Your task to perform on an android device: open app "Life360: Find Family & Friends" (install if not already installed) and go to login screen Image 0: 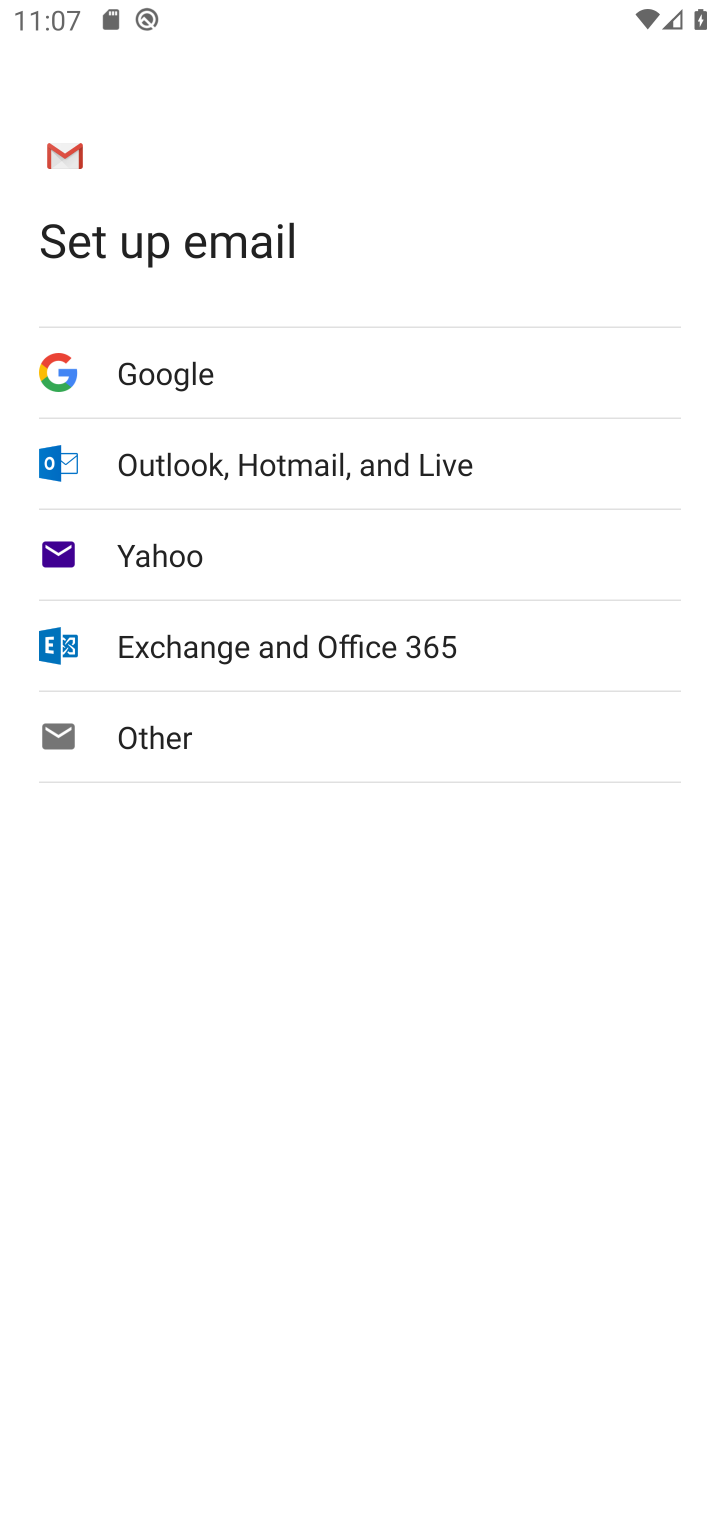
Step 0: press home button
Your task to perform on an android device: open app "Life360: Find Family & Friends" (install if not already installed) and go to login screen Image 1: 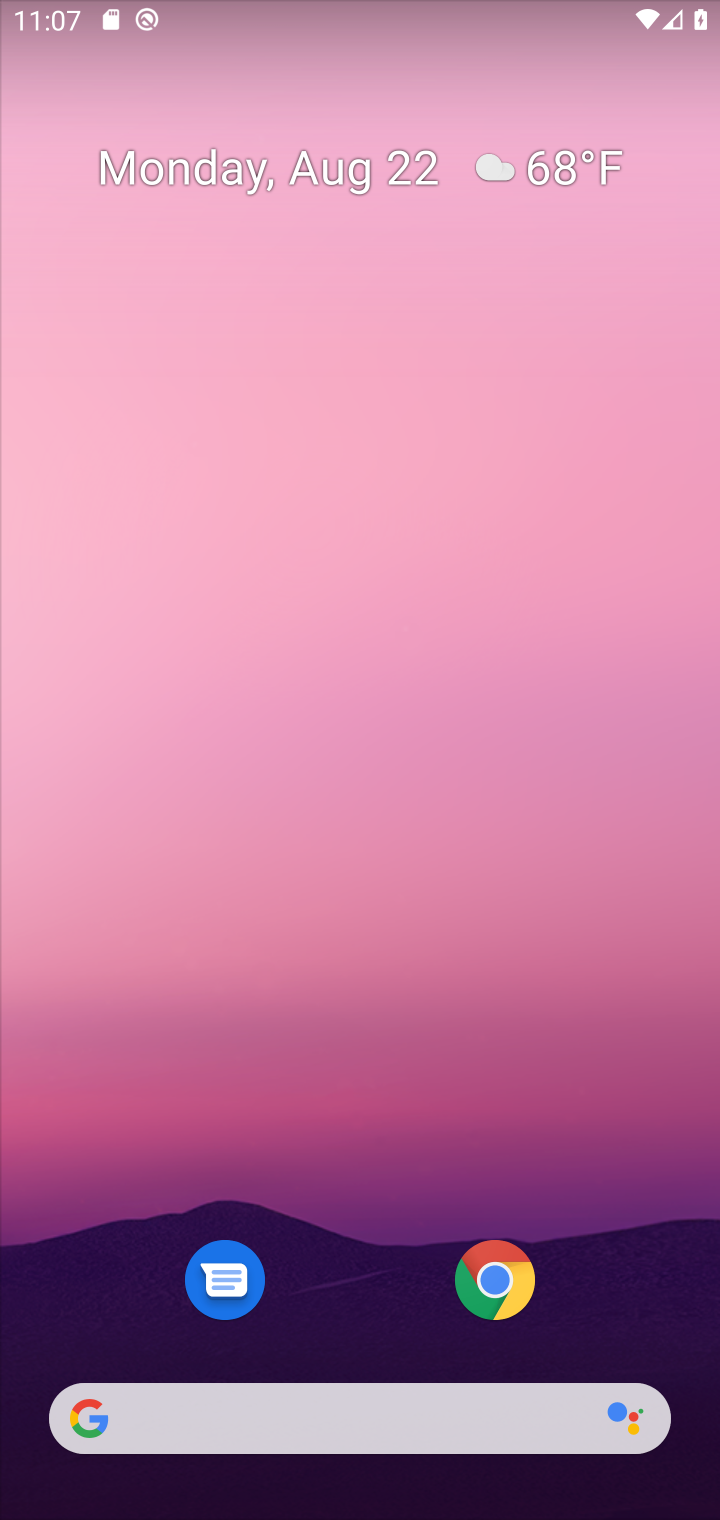
Step 1: drag from (355, 1343) to (443, 273)
Your task to perform on an android device: open app "Life360: Find Family & Friends" (install if not already installed) and go to login screen Image 2: 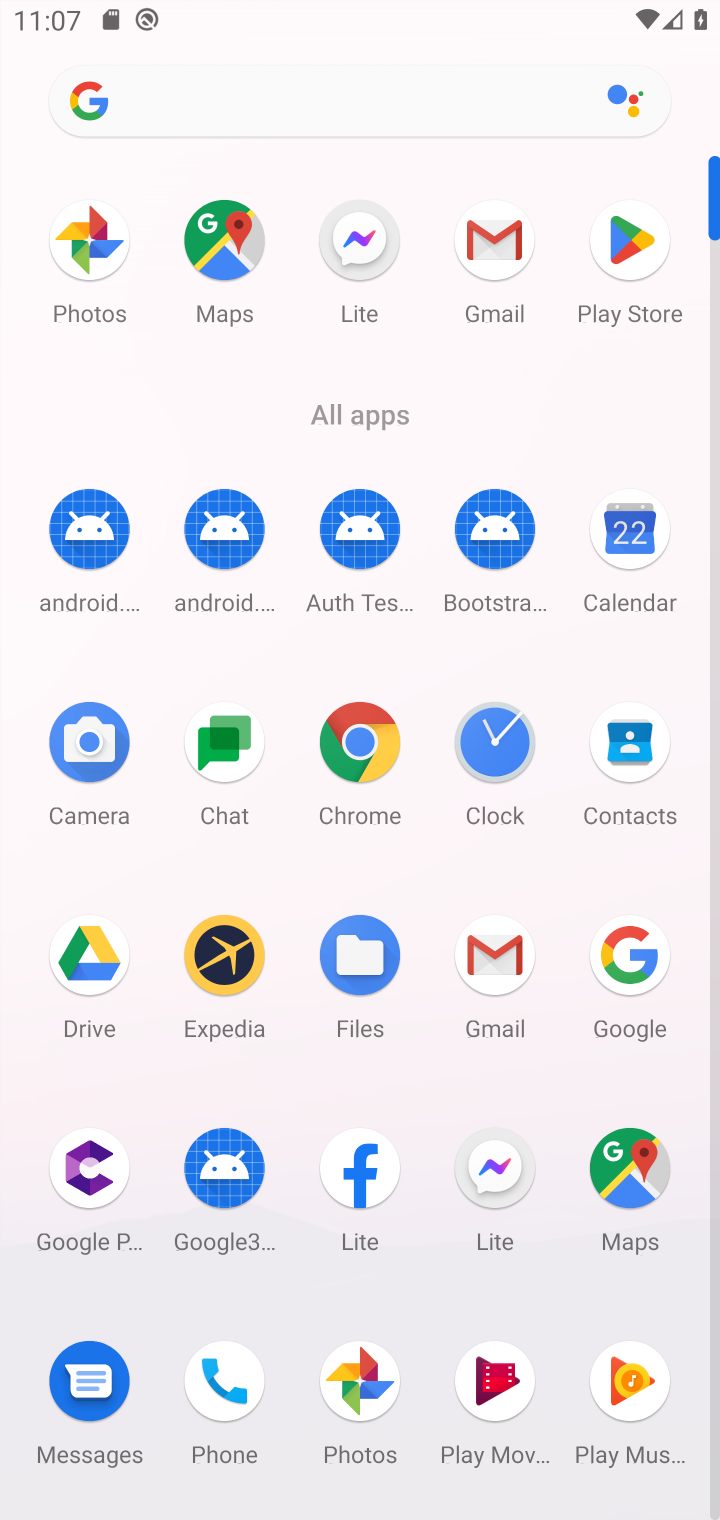
Step 2: click (618, 236)
Your task to perform on an android device: open app "Life360: Find Family & Friends" (install if not already installed) and go to login screen Image 3: 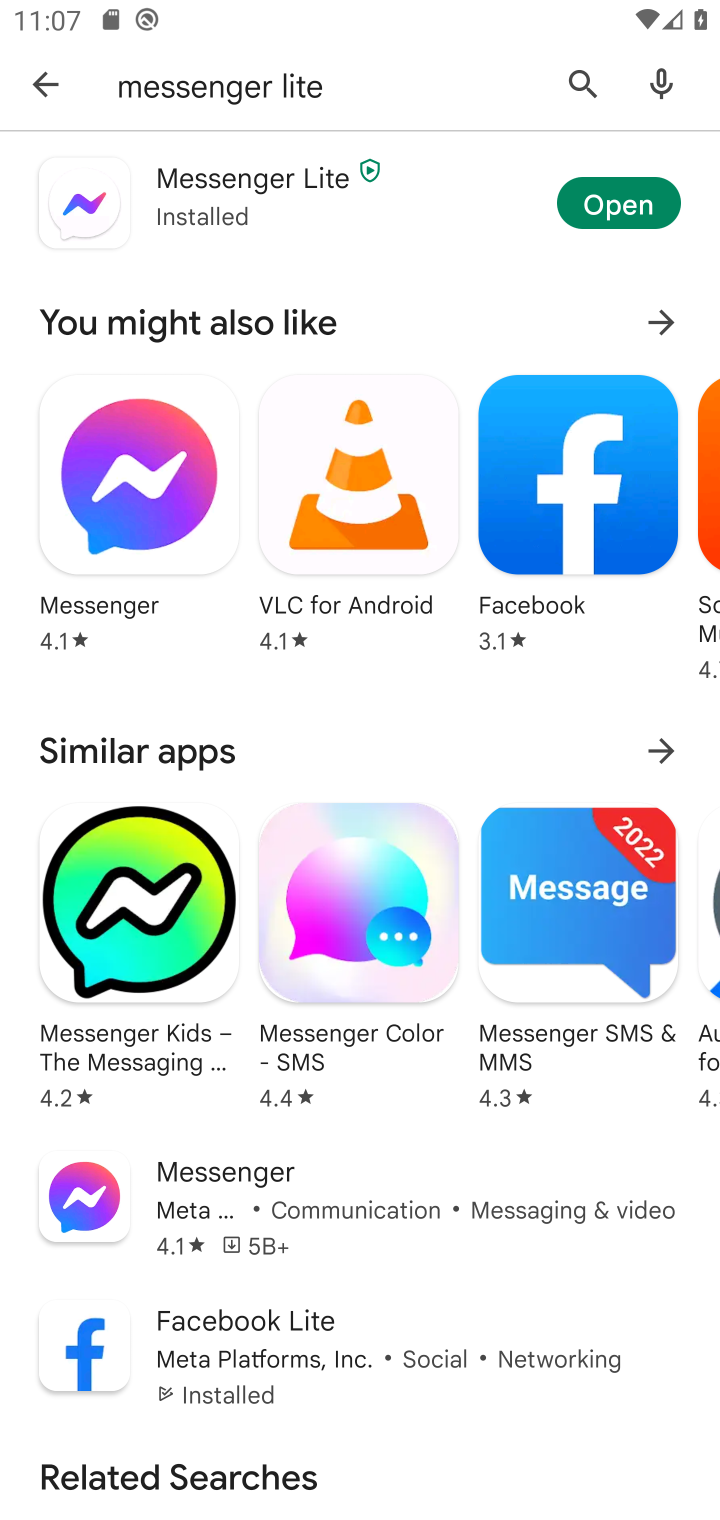
Step 3: click (585, 88)
Your task to perform on an android device: open app "Life360: Find Family & Friends" (install if not already installed) and go to login screen Image 4: 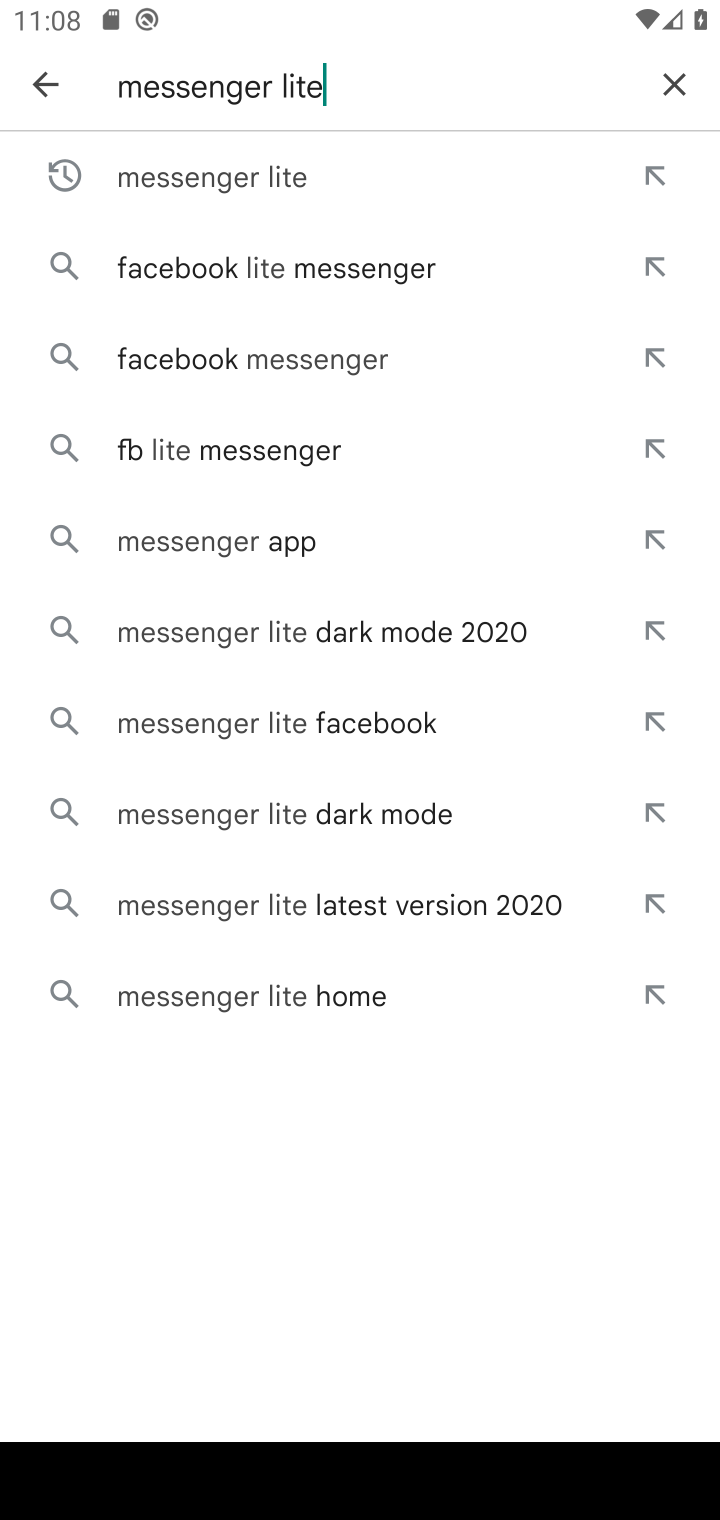
Step 4: click (677, 89)
Your task to perform on an android device: open app "Life360: Find Family & Friends" (install if not already installed) and go to login screen Image 5: 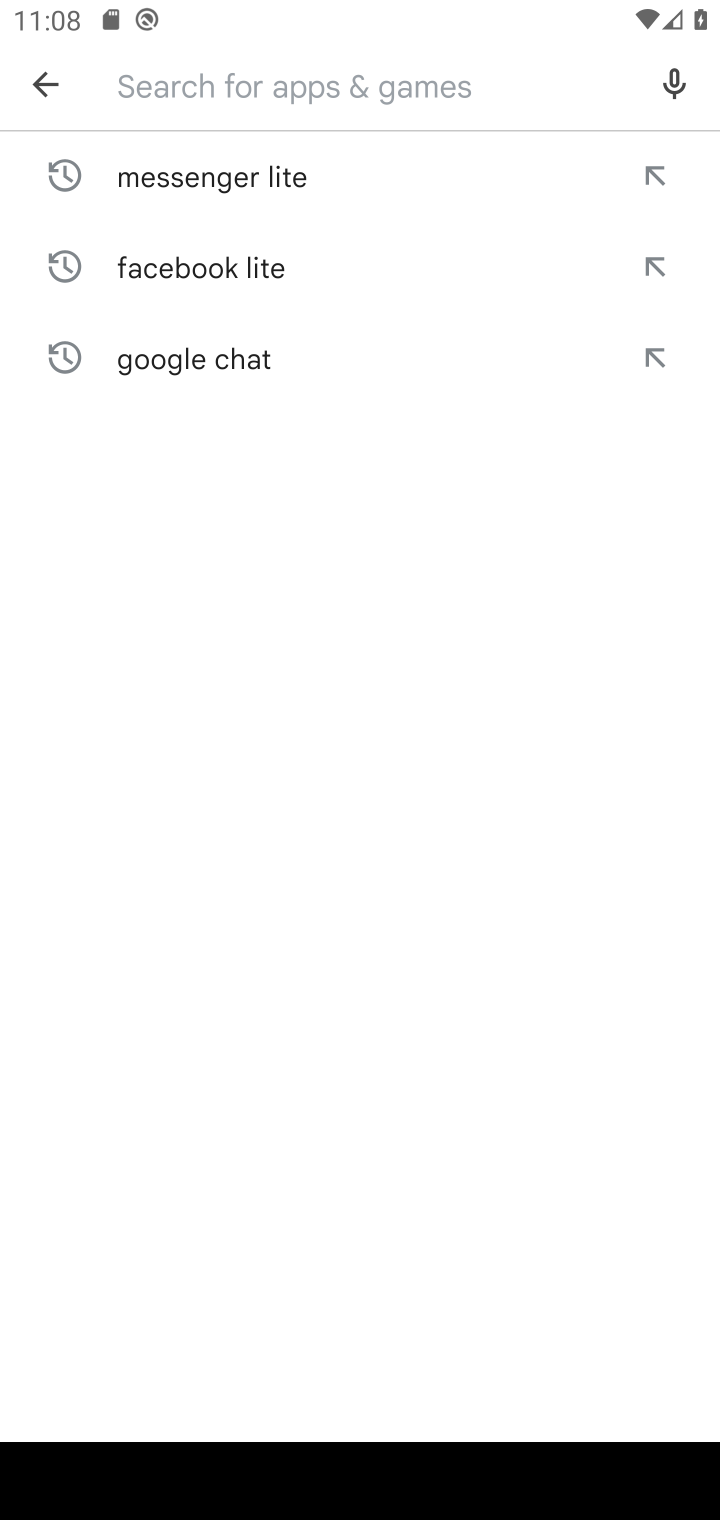
Step 5: type "Life360"
Your task to perform on an android device: open app "Life360: Find Family & Friends" (install if not already installed) and go to login screen Image 6: 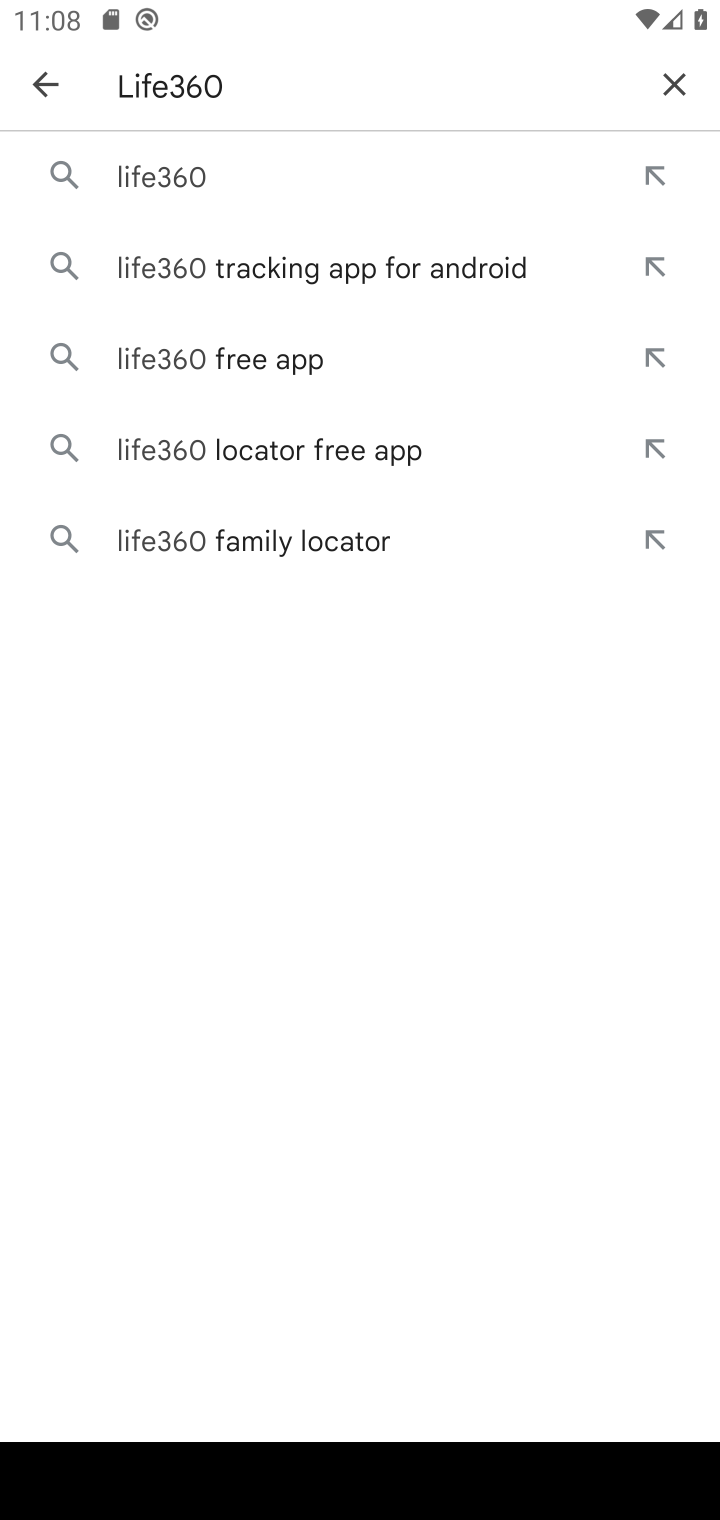
Step 6: click (250, 158)
Your task to perform on an android device: open app "Life360: Find Family & Friends" (install if not already installed) and go to login screen Image 7: 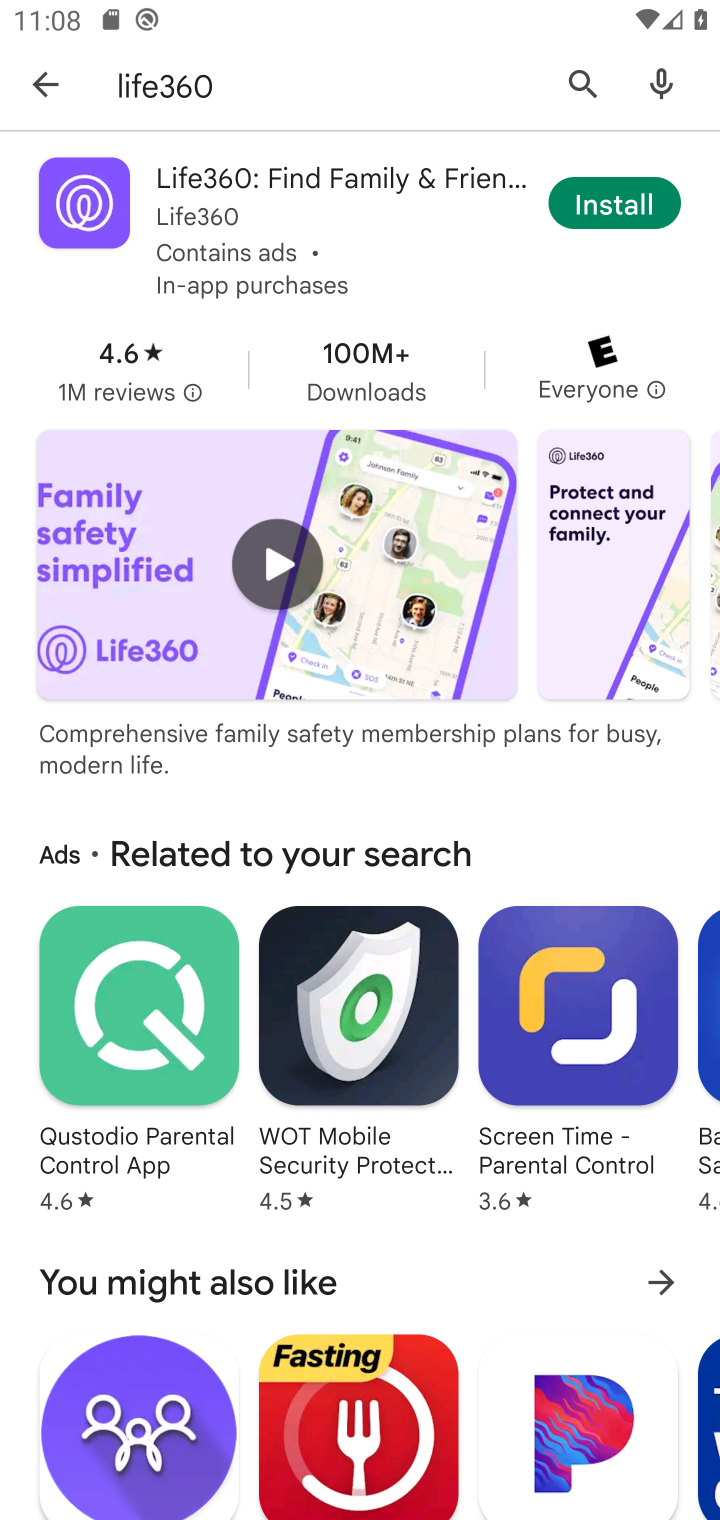
Step 7: click (628, 206)
Your task to perform on an android device: open app "Life360: Find Family & Friends" (install if not already installed) and go to login screen Image 8: 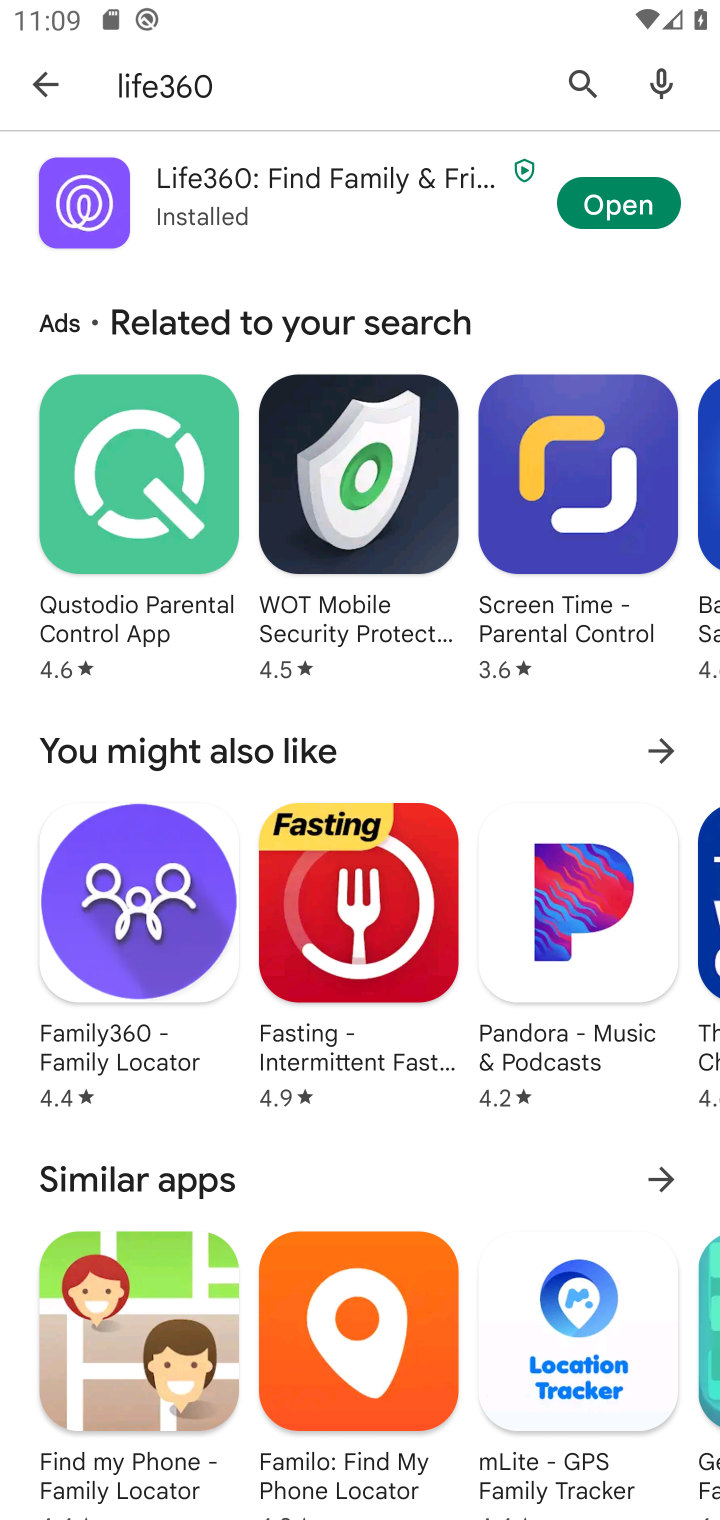
Step 8: click (607, 207)
Your task to perform on an android device: open app "Life360: Find Family & Friends" (install if not already installed) and go to login screen Image 9: 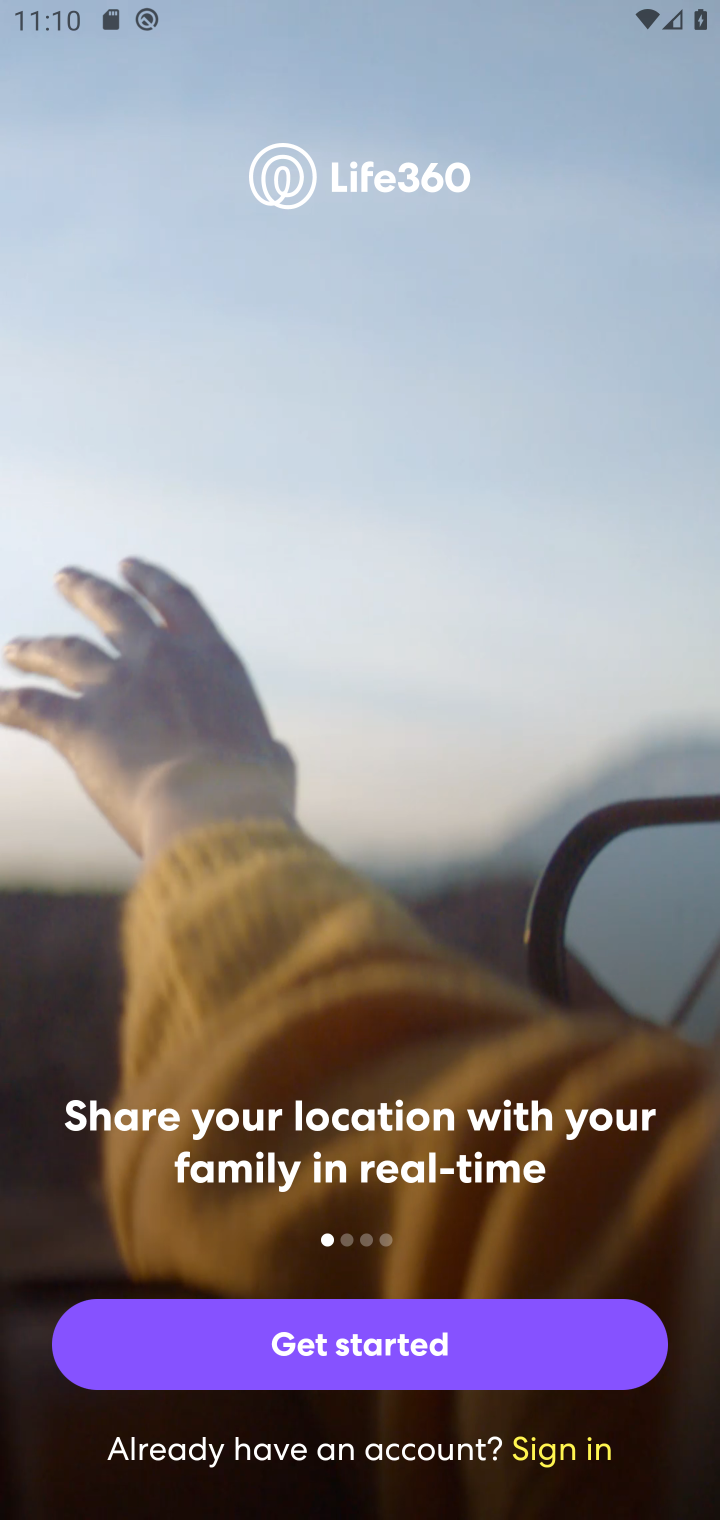
Step 9: click (377, 1331)
Your task to perform on an android device: open app "Life360: Find Family & Friends" (install if not already installed) and go to login screen Image 10: 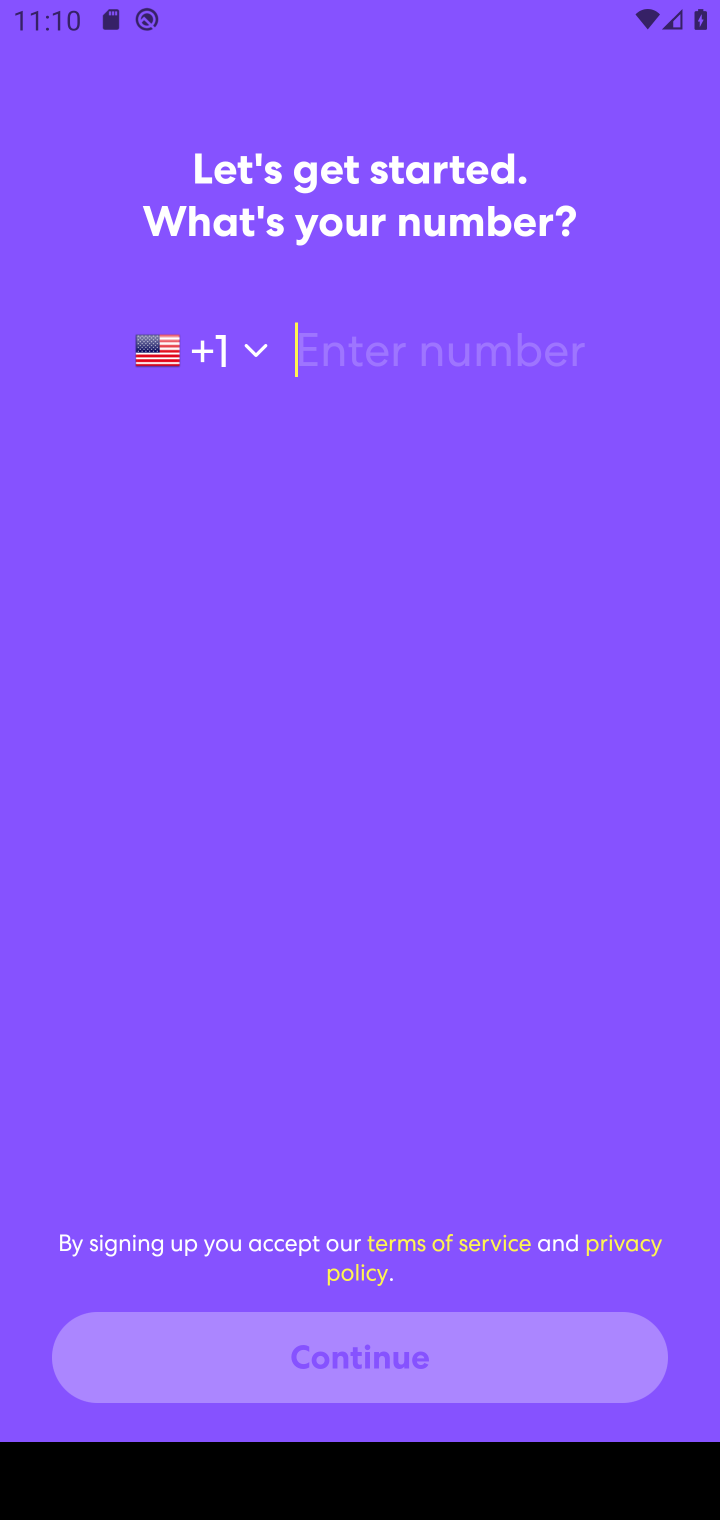
Step 10: task complete